Your task to perform on an android device: Open the web browser Image 0: 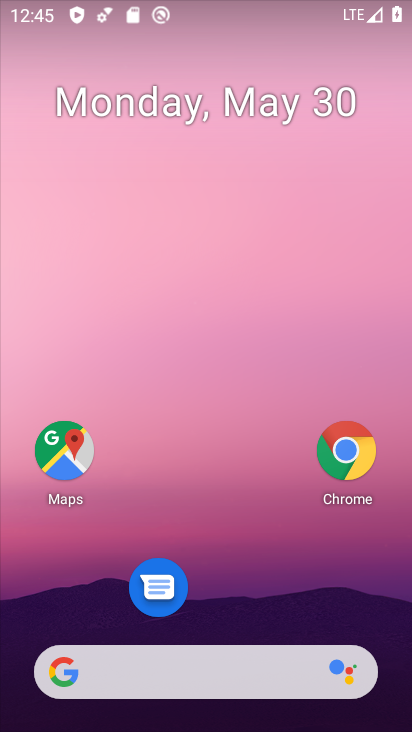
Step 0: drag from (251, 557) to (270, 141)
Your task to perform on an android device: Open the web browser Image 1: 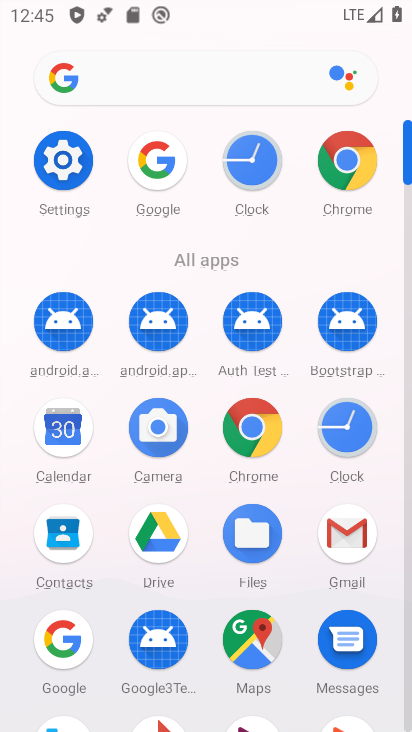
Step 1: click (160, 170)
Your task to perform on an android device: Open the web browser Image 2: 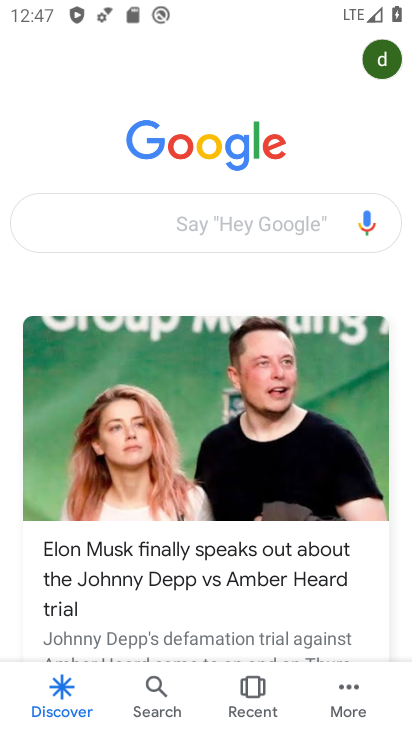
Step 2: task complete